Your task to perform on an android device: Go to internet settings Image 0: 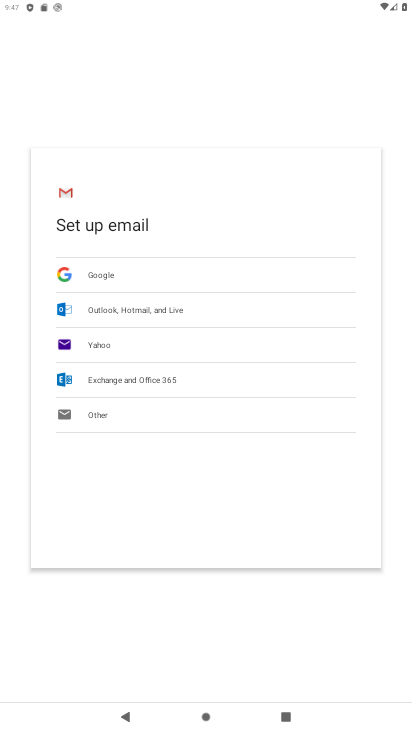
Step 0: press home button
Your task to perform on an android device: Go to internet settings Image 1: 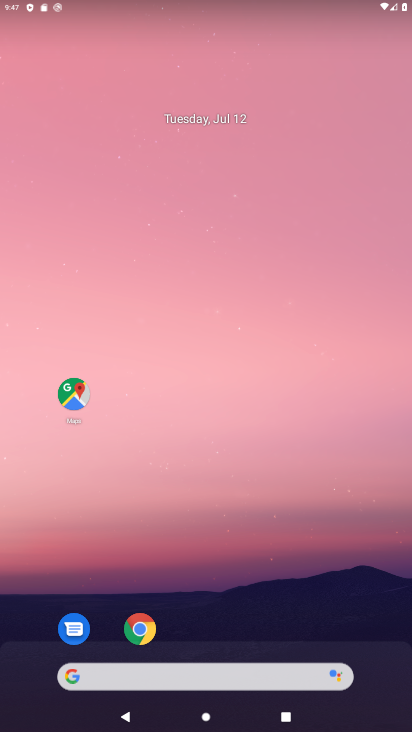
Step 1: drag from (186, 444) to (180, 306)
Your task to perform on an android device: Go to internet settings Image 2: 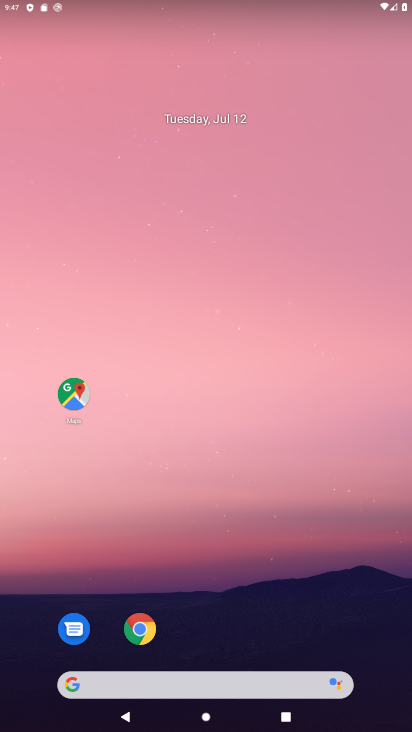
Step 2: drag from (215, 664) to (162, 198)
Your task to perform on an android device: Go to internet settings Image 3: 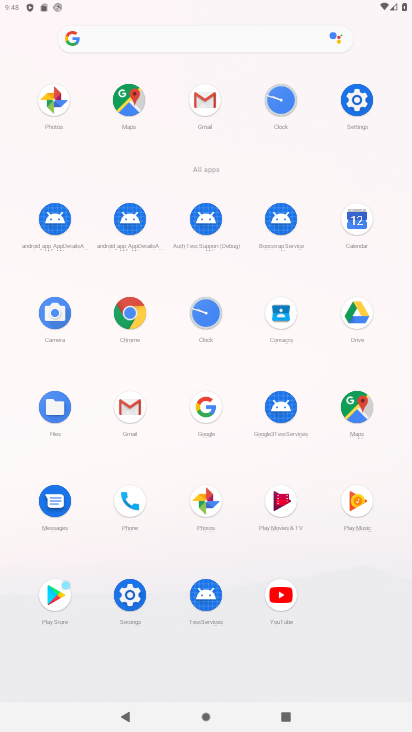
Step 3: click (361, 100)
Your task to perform on an android device: Go to internet settings Image 4: 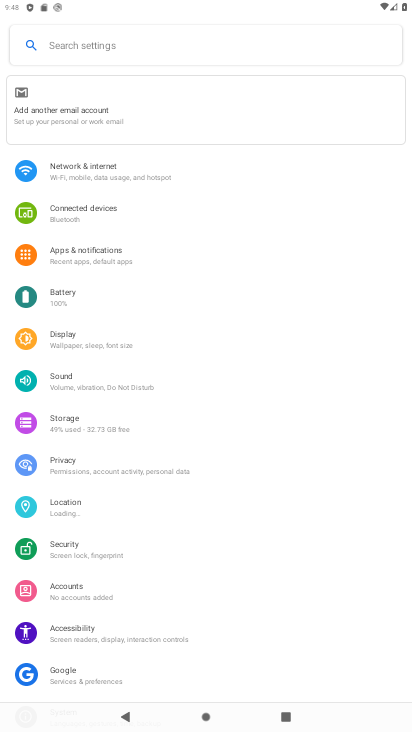
Step 4: click (123, 178)
Your task to perform on an android device: Go to internet settings Image 5: 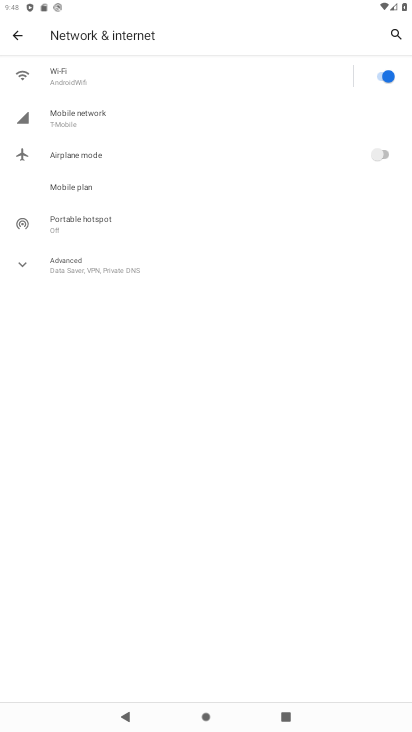
Step 5: click (59, 267)
Your task to perform on an android device: Go to internet settings Image 6: 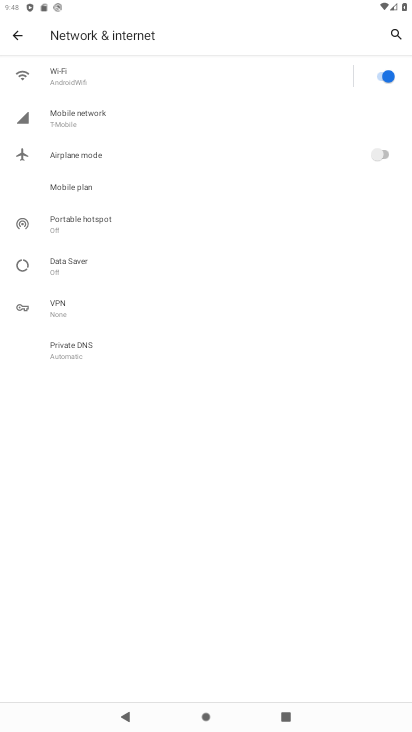
Step 6: task complete